Your task to perform on an android device: Open Chrome and go to the settings page Image 0: 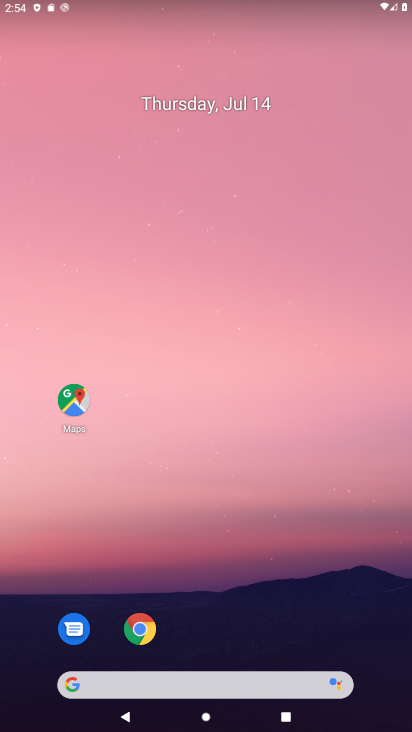
Step 0: press home button
Your task to perform on an android device: Open Chrome and go to the settings page Image 1: 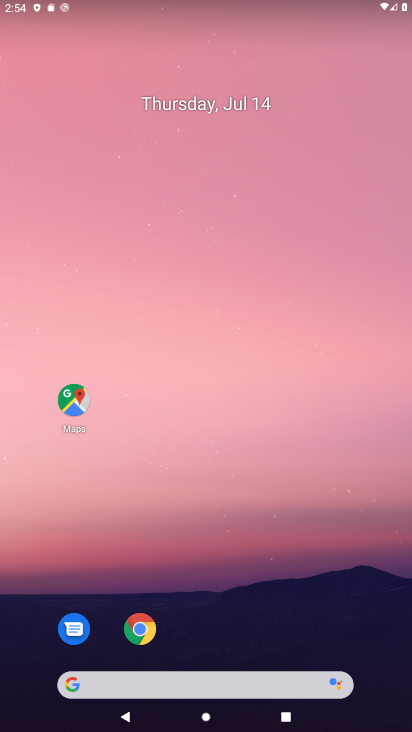
Step 1: click (139, 622)
Your task to perform on an android device: Open Chrome and go to the settings page Image 2: 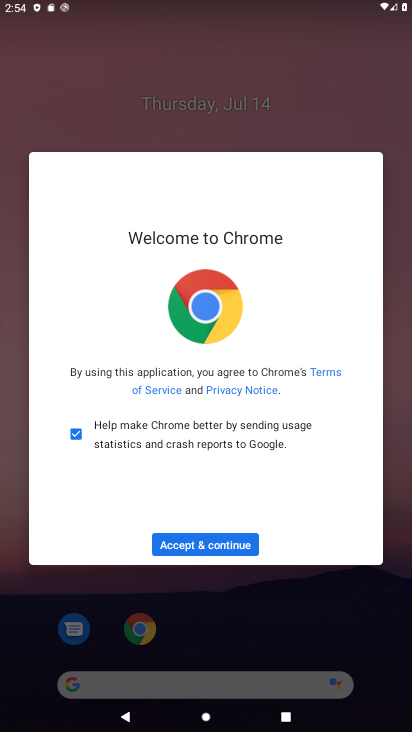
Step 2: click (210, 538)
Your task to perform on an android device: Open Chrome and go to the settings page Image 3: 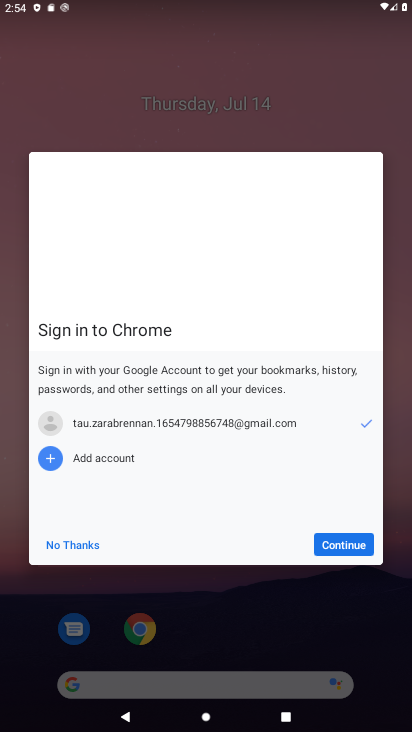
Step 3: click (338, 541)
Your task to perform on an android device: Open Chrome and go to the settings page Image 4: 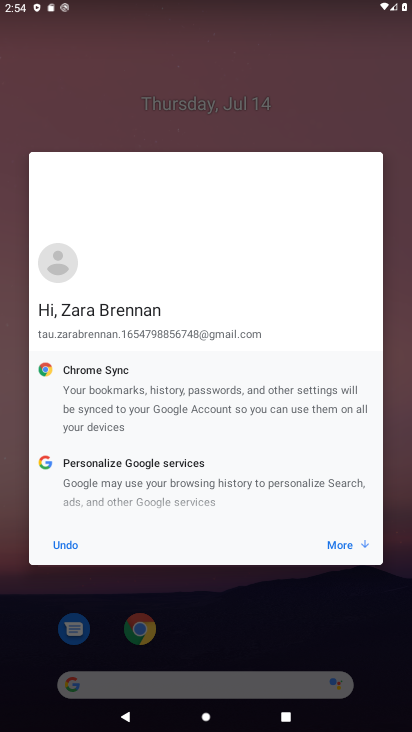
Step 4: click (338, 541)
Your task to perform on an android device: Open Chrome and go to the settings page Image 5: 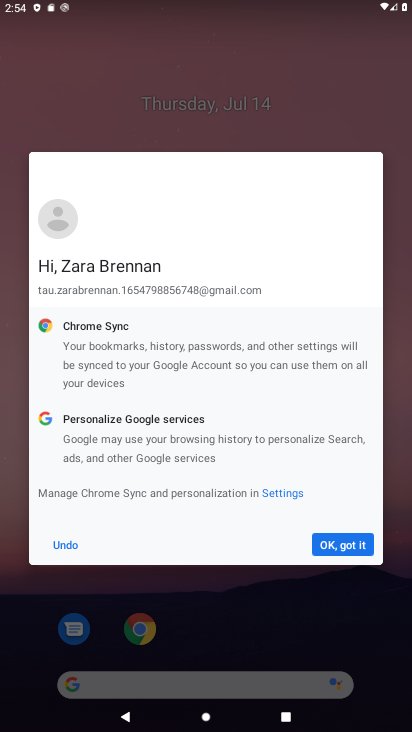
Step 5: click (338, 541)
Your task to perform on an android device: Open Chrome and go to the settings page Image 6: 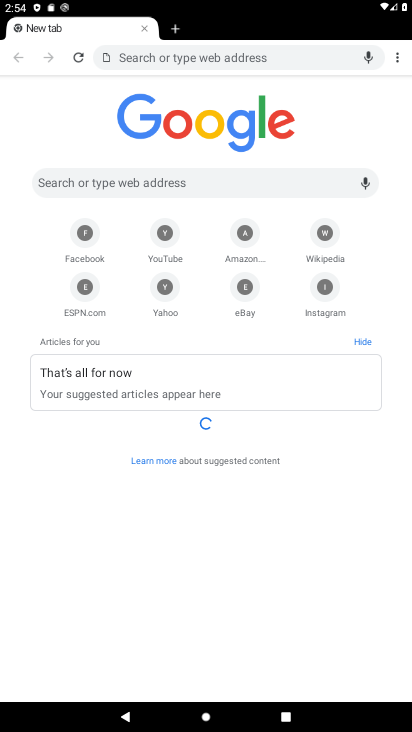
Step 6: click (394, 58)
Your task to perform on an android device: Open Chrome and go to the settings page Image 7: 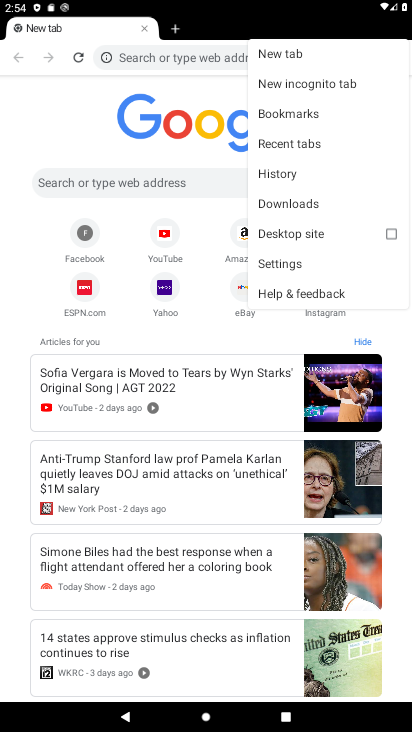
Step 7: click (301, 261)
Your task to perform on an android device: Open Chrome and go to the settings page Image 8: 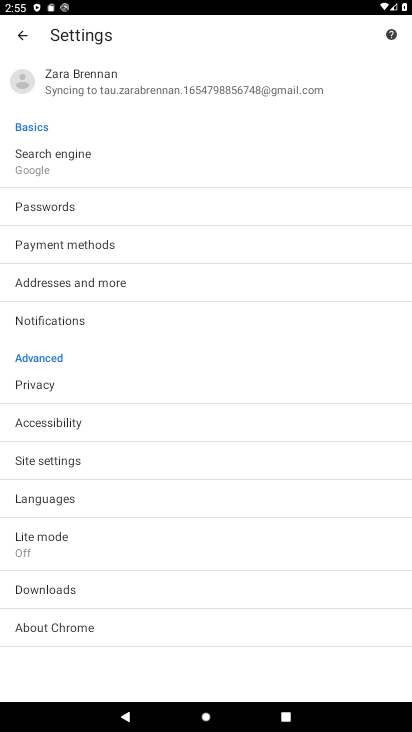
Step 8: task complete